Your task to perform on an android device: Go to calendar. Show me events next week Image 0: 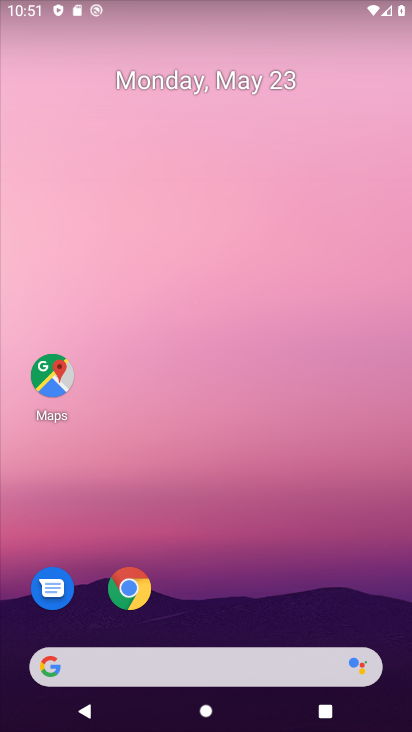
Step 0: drag from (212, 643) to (273, 98)
Your task to perform on an android device: Go to calendar. Show me events next week Image 1: 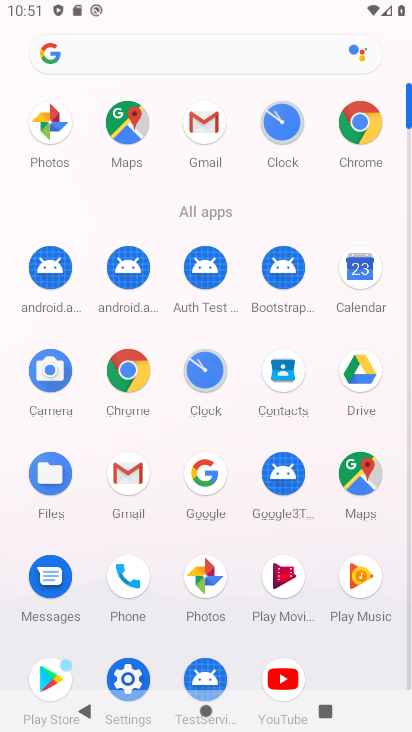
Step 1: click (357, 287)
Your task to perform on an android device: Go to calendar. Show me events next week Image 2: 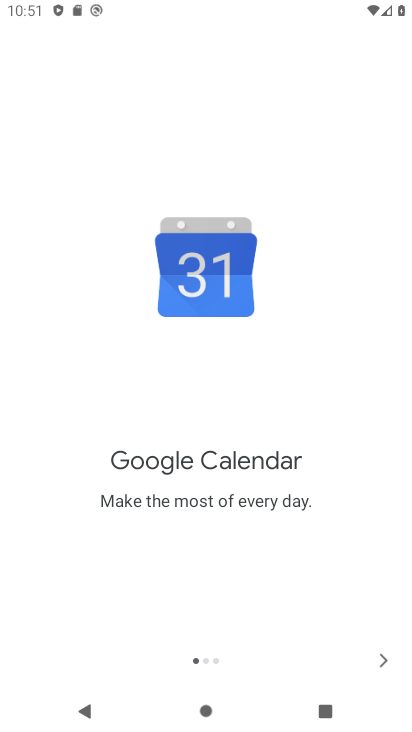
Step 2: click (373, 667)
Your task to perform on an android device: Go to calendar. Show me events next week Image 3: 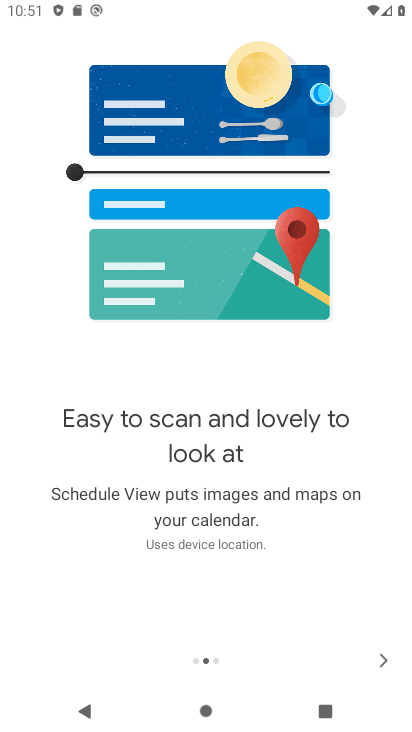
Step 3: click (378, 661)
Your task to perform on an android device: Go to calendar. Show me events next week Image 4: 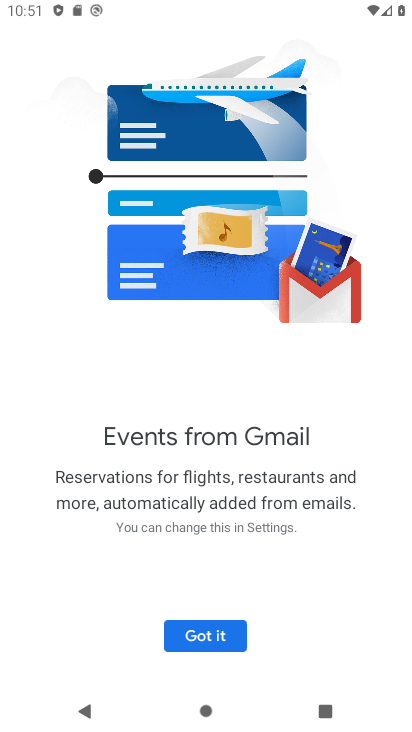
Step 4: click (215, 626)
Your task to perform on an android device: Go to calendar. Show me events next week Image 5: 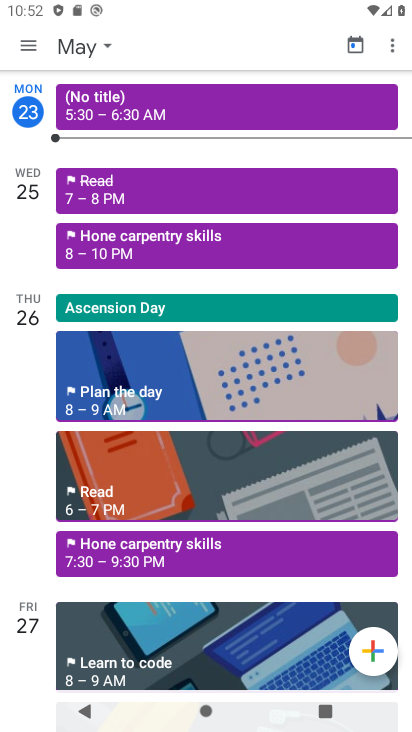
Step 5: click (83, 44)
Your task to perform on an android device: Go to calendar. Show me events next week Image 6: 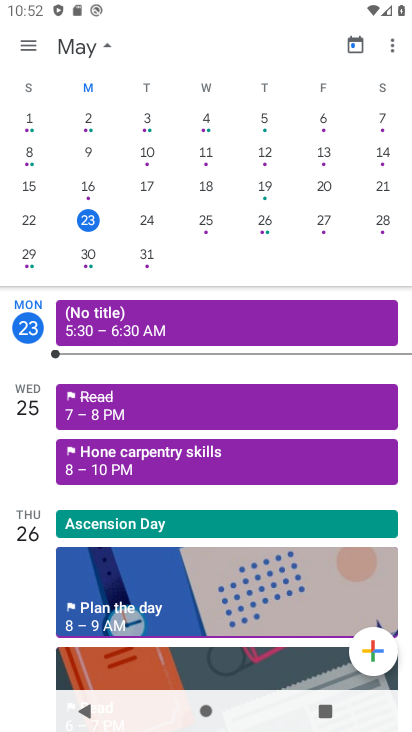
Step 6: click (30, 255)
Your task to perform on an android device: Go to calendar. Show me events next week Image 7: 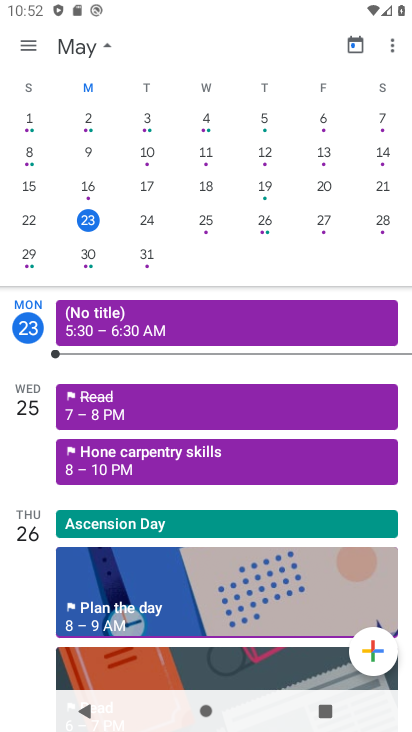
Step 7: click (30, 258)
Your task to perform on an android device: Go to calendar. Show me events next week Image 8: 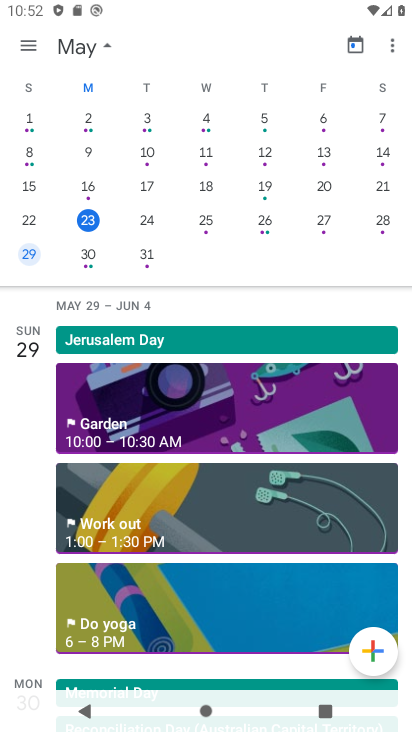
Step 8: click (33, 42)
Your task to perform on an android device: Go to calendar. Show me events next week Image 9: 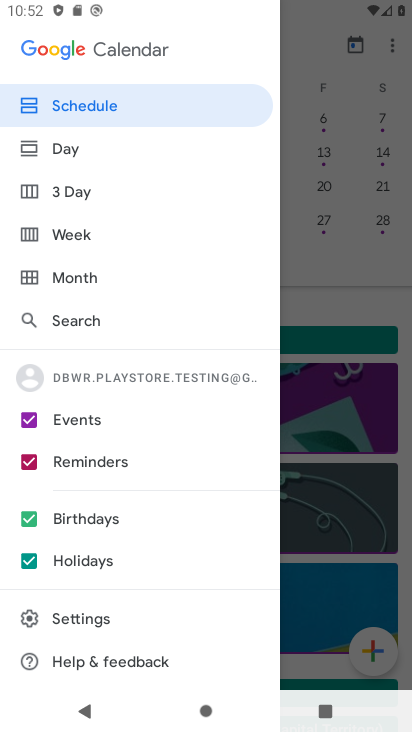
Step 9: click (76, 234)
Your task to perform on an android device: Go to calendar. Show me events next week Image 10: 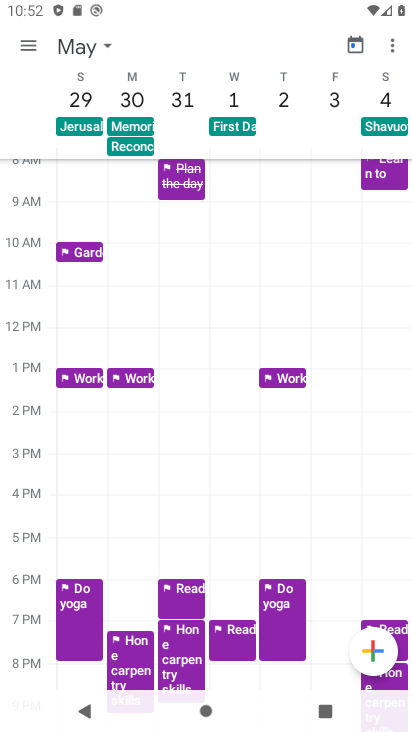
Step 10: task complete